Your task to perform on an android device: Go to Yahoo.com Image 0: 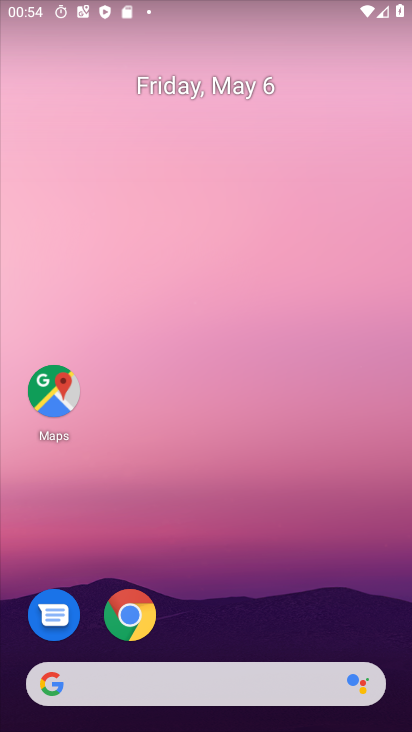
Step 0: click (128, 615)
Your task to perform on an android device: Go to Yahoo.com Image 1: 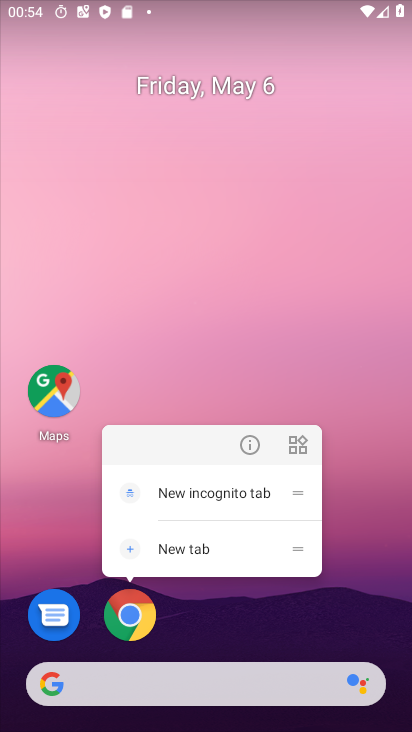
Step 1: click (129, 615)
Your task to perform on an android device: Go to Yahoo.com Image 2: 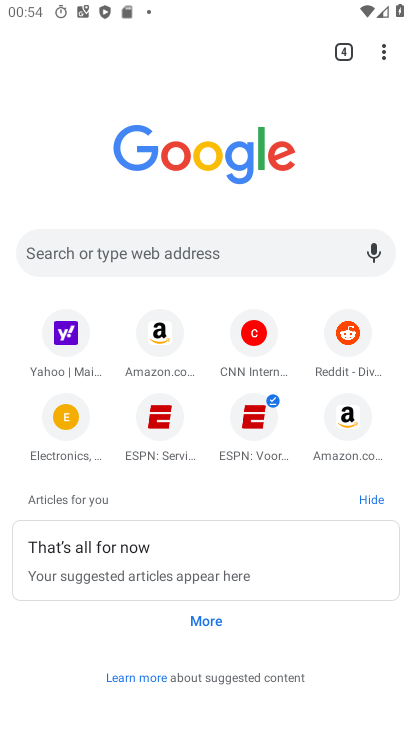
Step 2: click (59, 332)
Your task to perform on an android device: Go to Yahoo.com Image 3: 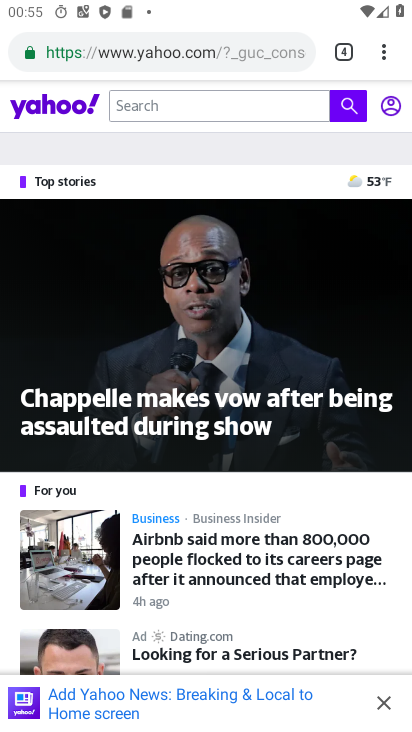
Step 3: task complete